Your task to perform on an android device: Open maps Image 0: 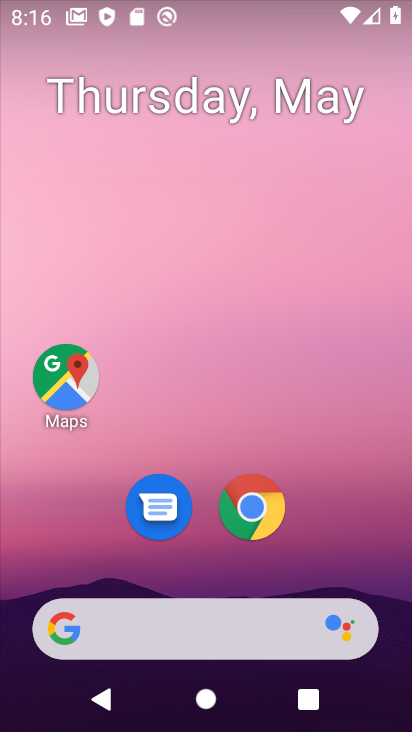
Step 0: drag from (185, 668) to (180, 155)
Your task to perform on an android device: Open maps Image 1: 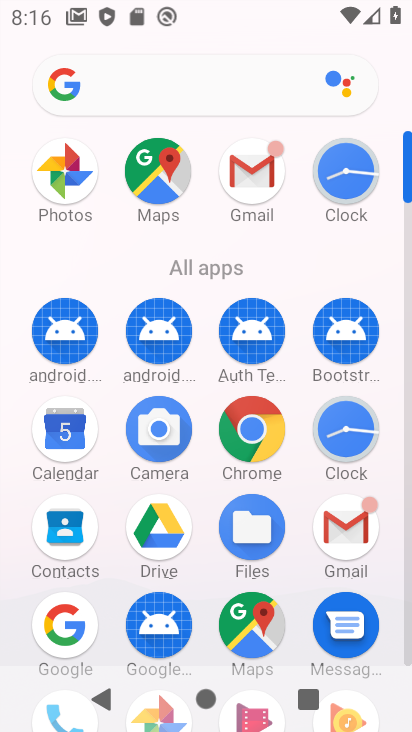
Step 1: drag from (202, 461) to (174, 512)
Your task to perform on an android device: Open maps Image 2: 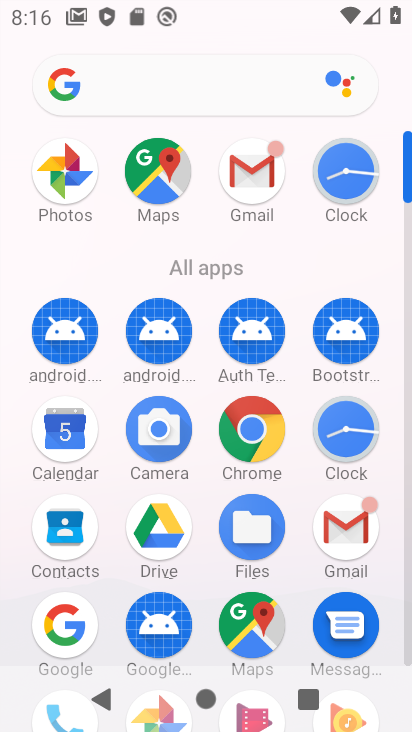
Step 2: click (156, 182)
Your task to perform on an android device: Open maps Image 3: 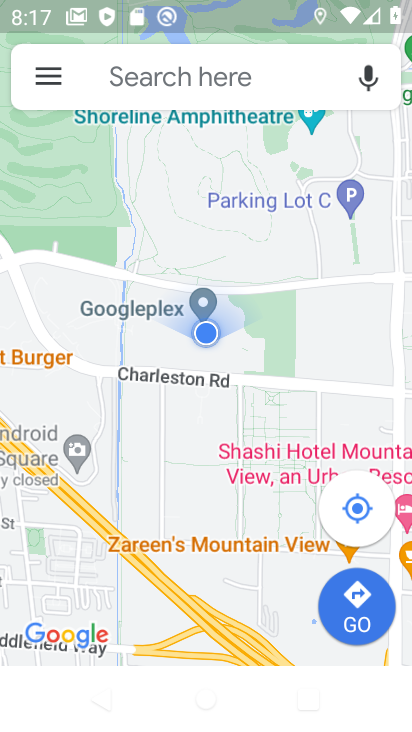
Step 3: task complete